Your task to perform on an android device: change the clock display to digital Image 0: 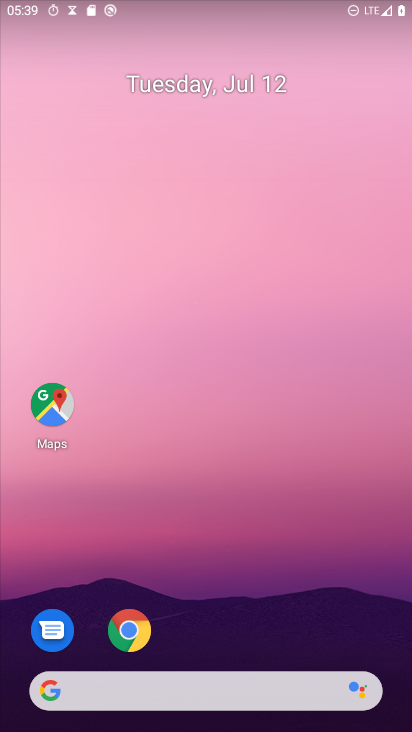
Step 0: drag from (329, 692) to (342, 35)
Your task to perform on an android device: change the clock display to digital Image 1: 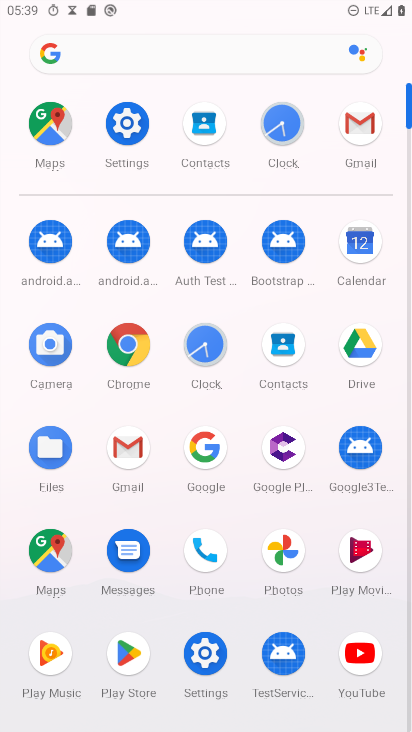
Step 1: click (192, 344)
Your task to perform on an android device: change the clock display to digital Image 2: 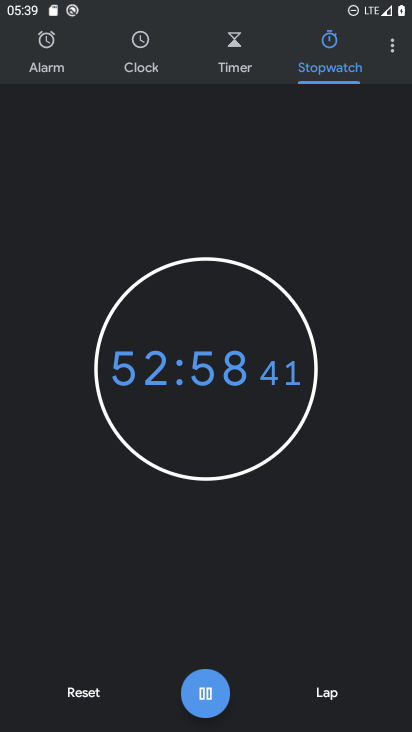
Step 2: drag from (388, 54) to (300, 125)
Your task to perform on an android device: change the clock display to digital Image 3: 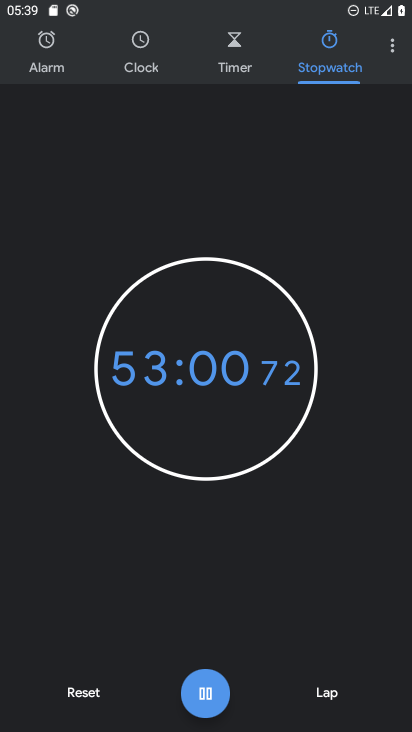
Step 3: click (398, 45)
Your task to perform on an android device: change the clock display to digital Image 4: 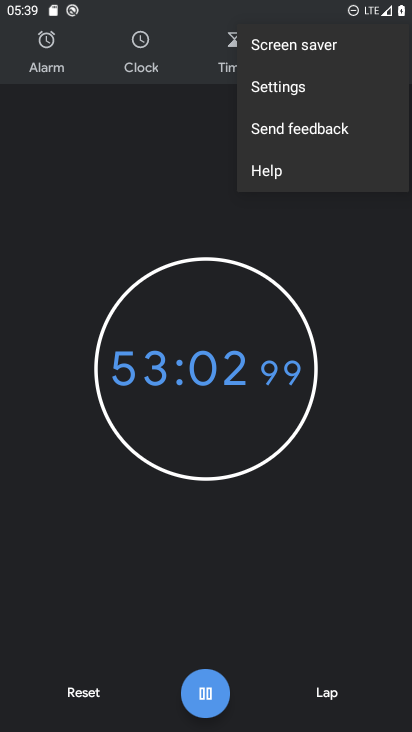
Step 4: click (295, 81)
Your task to perform on an android device: change the clock display to digital Image 5: 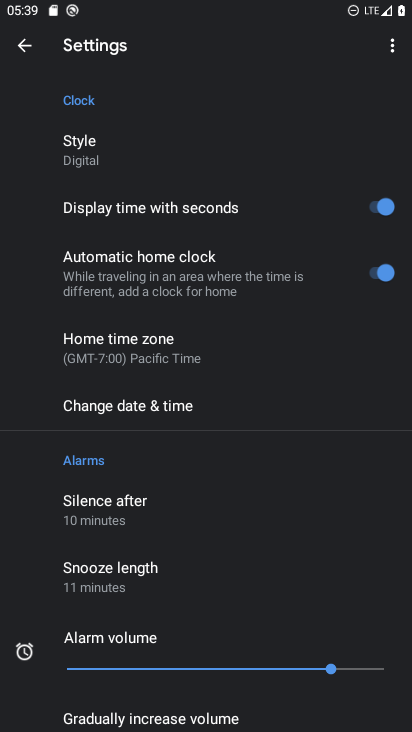
Step 5: task complete